Your task to perform on an android device: Go to Wikipedia Image 0: 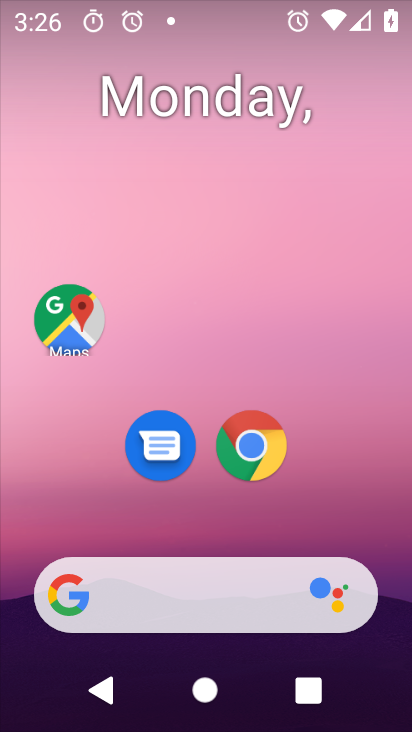
Step 0: click (281, 451)
Your task to perform on an android device: Go to Wikipedia Image 1: 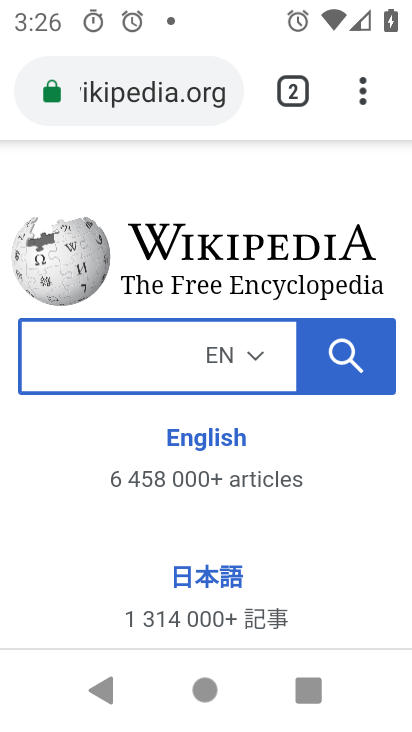
Step 1: task complete